Your task to perform on an android device: set the stopwatch Image 0: 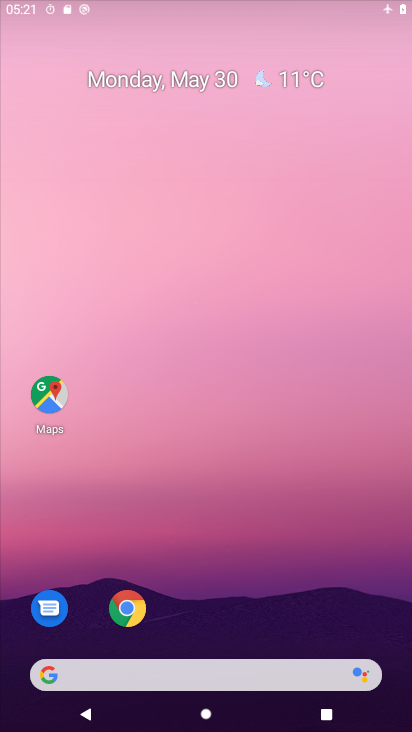
Step 0: press home button
Your task to perform on an android device: set the stopwatch Image 1: 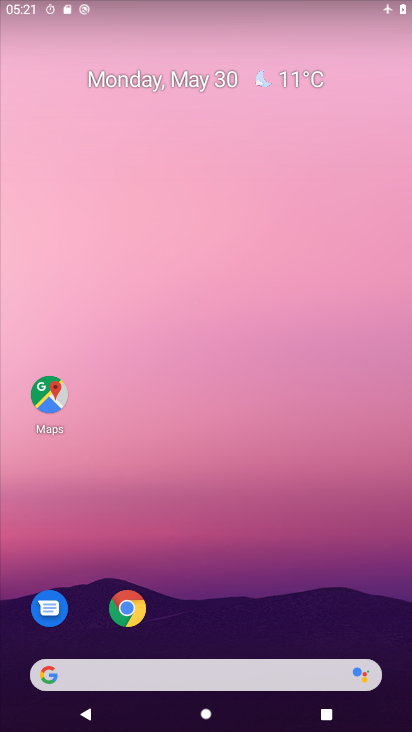
Step 1: drag from (284, 607) to (207, 94)
Your task to perform on an android device: set the stopwatch Image 2: 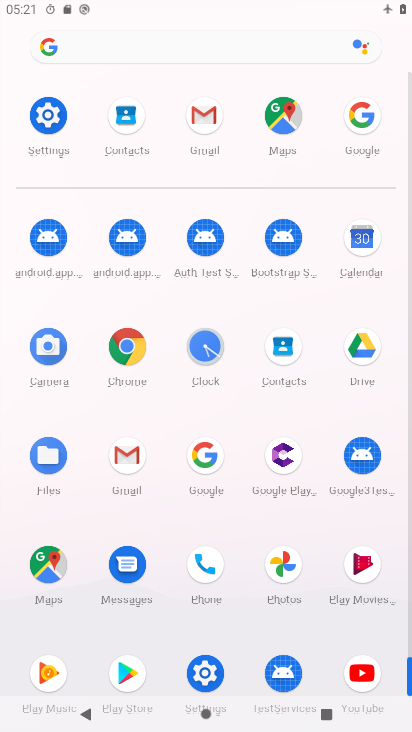
Step 2: click (202, 349)
Your task to perform on an android device: set the stopwatch Image 3: 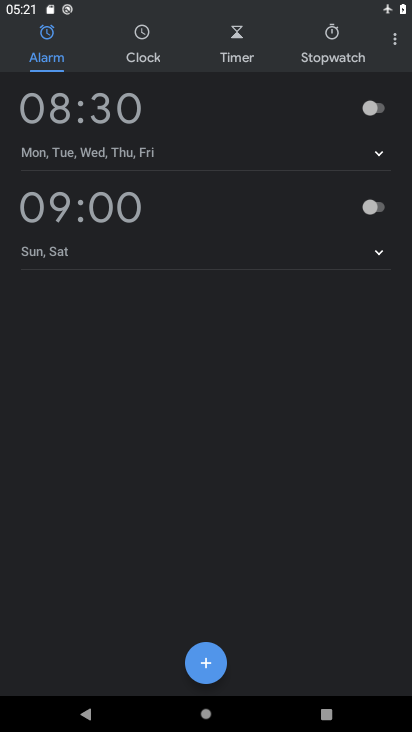
Step 3: click (351, 53)
Your task to perform on an android device: set the stopwatch Image 4: 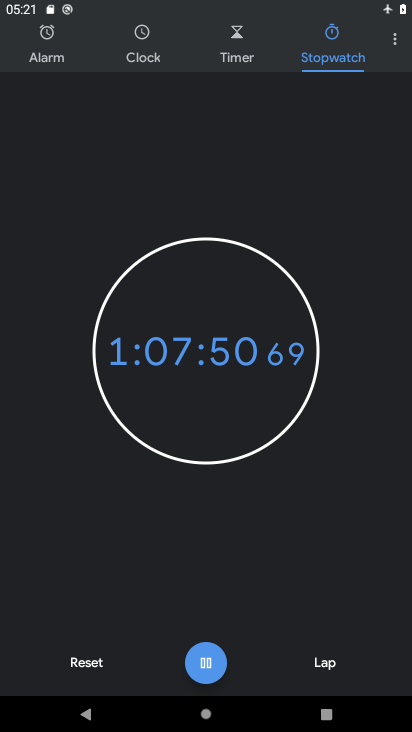
Step 4: task complete